Your task to perform on an android device: turn off location history Image 0: 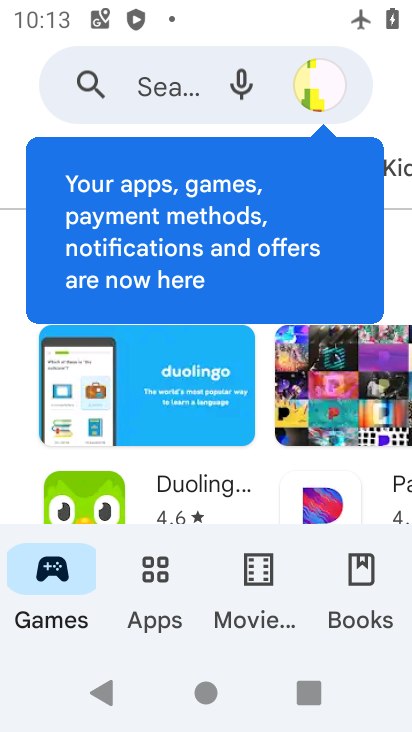
Step 0: press home button
Your task to perform on an android device: turn off location history Image 1: 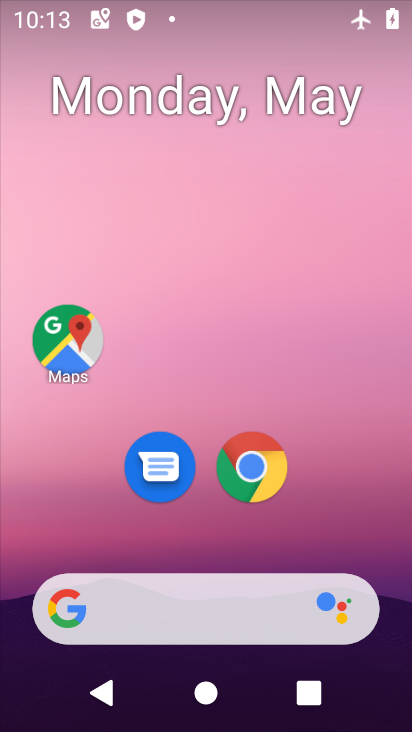
Step 1: click (68, 337)
Your task to perform on an android device: turn off location history Image 2: 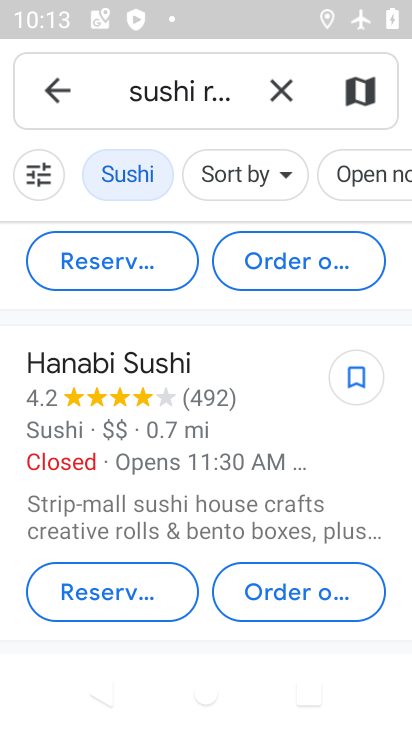
Step 2: click (278, 85)
Your task to perform on an android device: turn off location history Image 3: 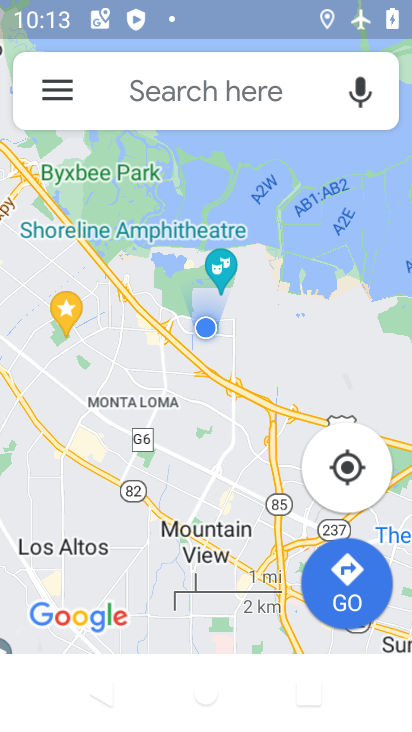
Step 3: click (55, 90)
Your task to perform on an android device: turn off location history Image 4: 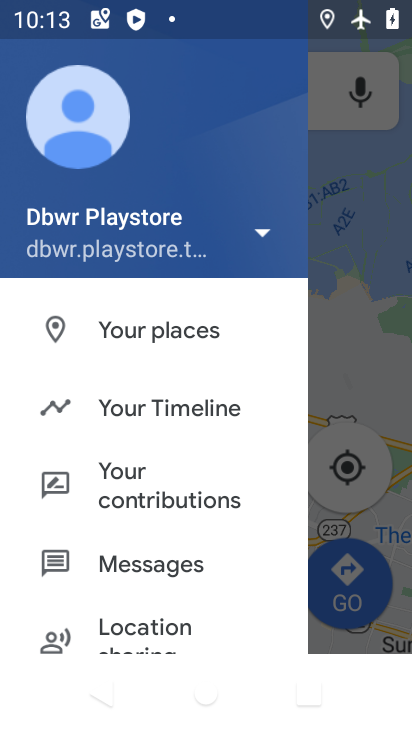
Step 4: drag from (248, 620) to (273, 216)
Your task to perform on an android device: turn off location history Image 5: 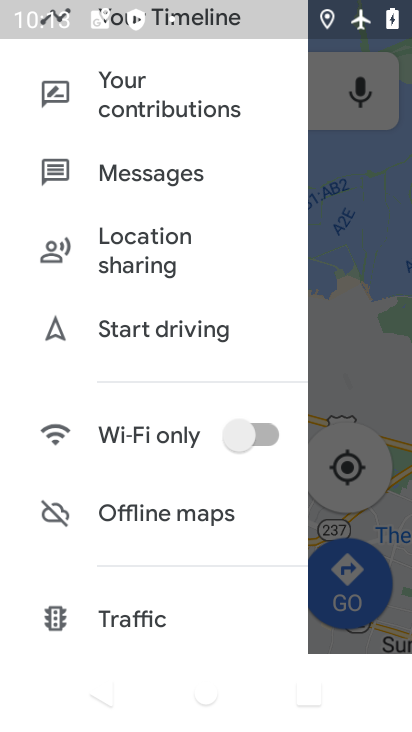
Step 5: drag from (224, 655) to (252, 221)
Your task to perform on an android device: turn off location history Image 6: 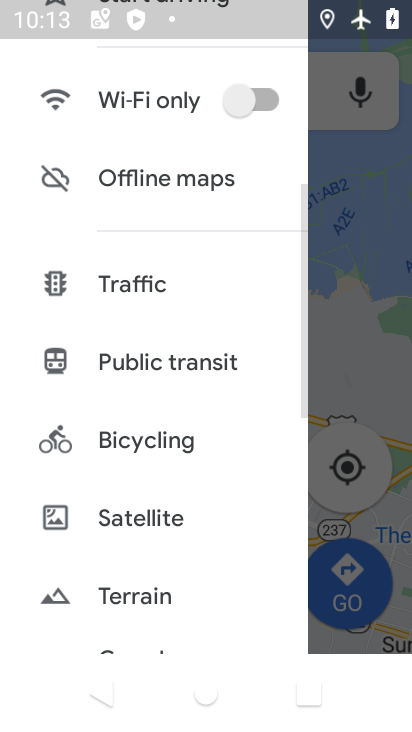
Step 6: drag from (230, 602) to (171, 56)
Your task to perform on an android device: turn off location history Image 7: 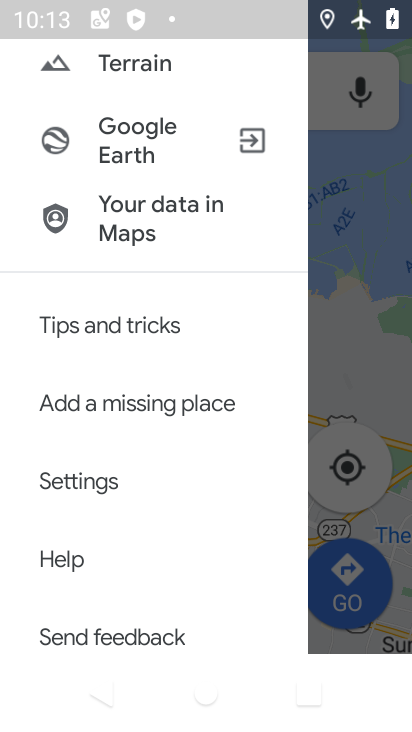
Step 7: click (103, 489)
Your task to perform on an android device: turn off location history Image 8: 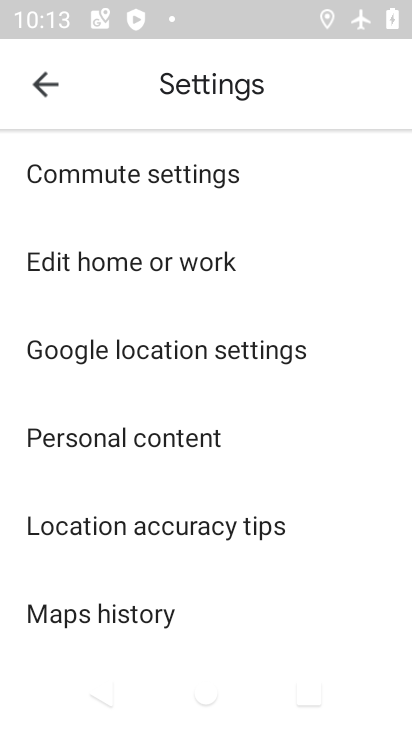
Step 8: click (174, 443)
Your task to perform on an android device: turn off location history Image 9: 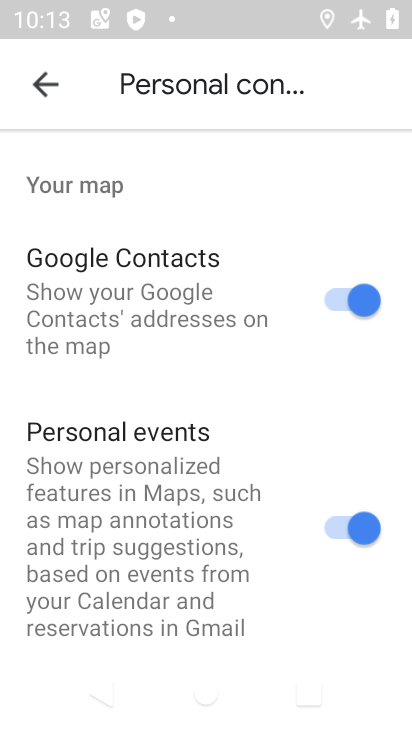
Step 9: drag from (226, 544) to (270, 101)
Your task to perform on an android device: turn off location history Image 10: 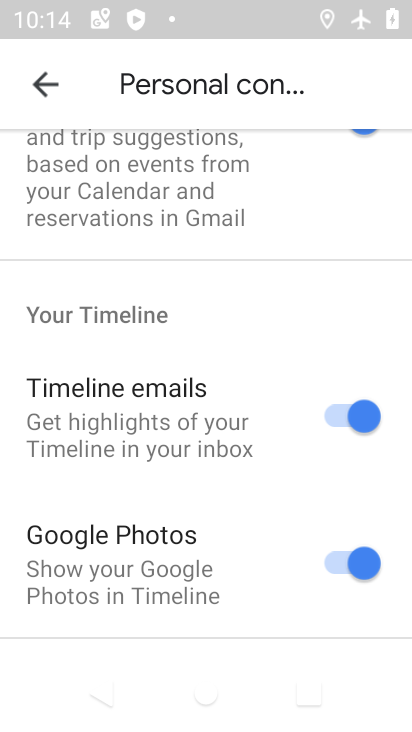
Step 10: drag from (277, 581) to (272, 100)
Your task to perform on an android device: turn off location history Image 11: 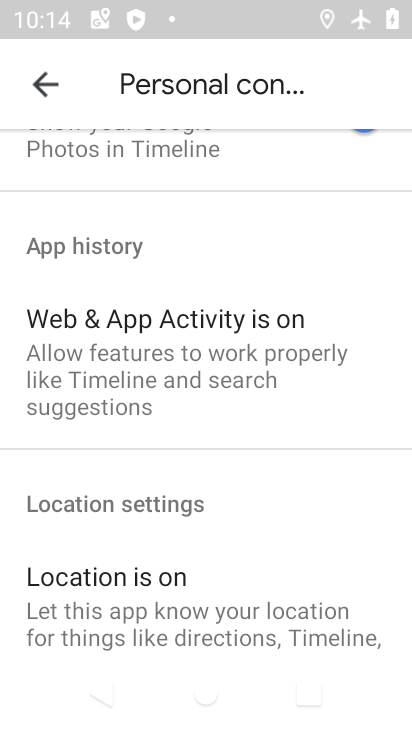
Step 11: drag from (260, 520) to (256, 197)
Your task to perform on an android device: turn off location history Image 12: 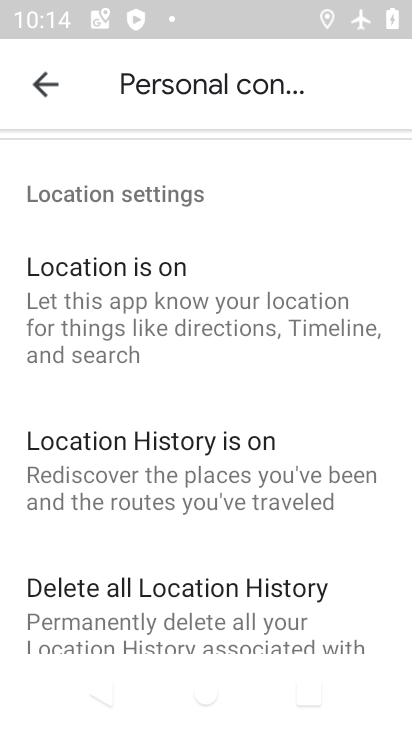
Step 12: click (164, 453)
Your task to perform on an android device: turn off location history Image 13: 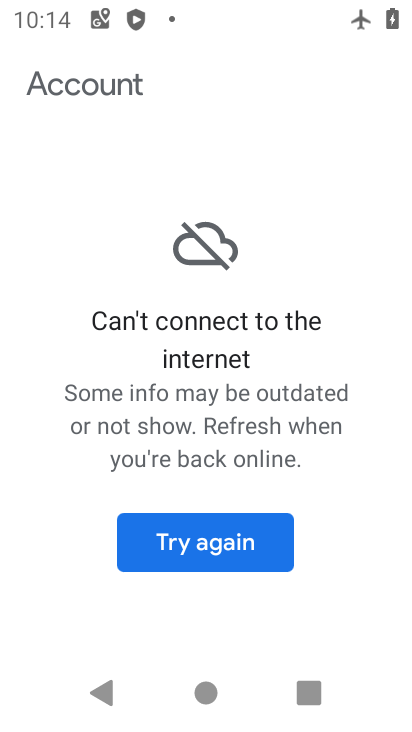
Step 13: click (209, 540)
Your task to perform on an android device: turn off location history Image 14: 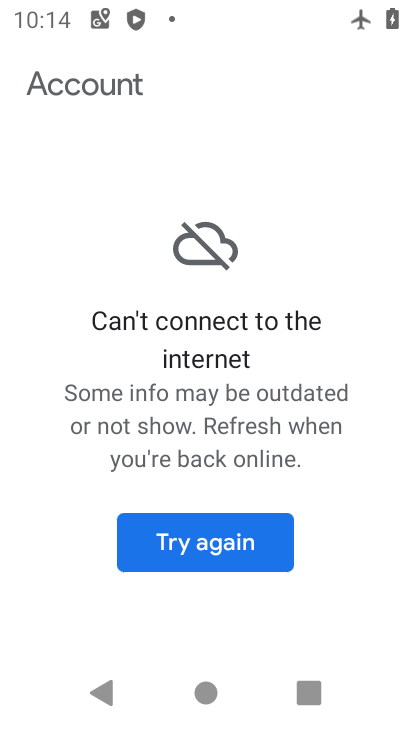
Step 14: task complete